Your task to perform on an android device: open a bookmark in the chrome app Image 0: 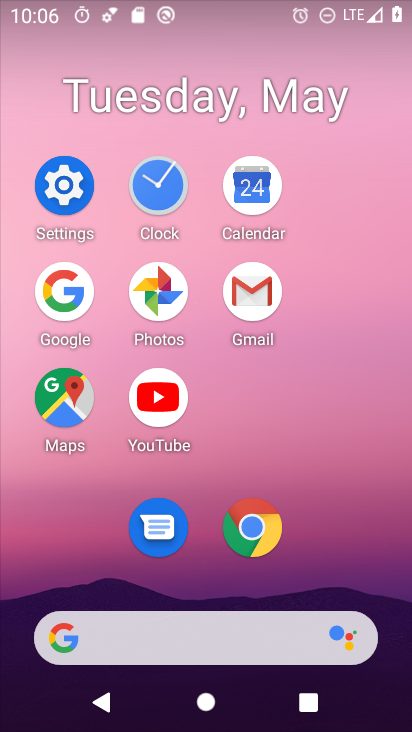
Step 0: click (255, 532)
Your task to perform on an android device: open a bookmark in the chrome app Image 1: 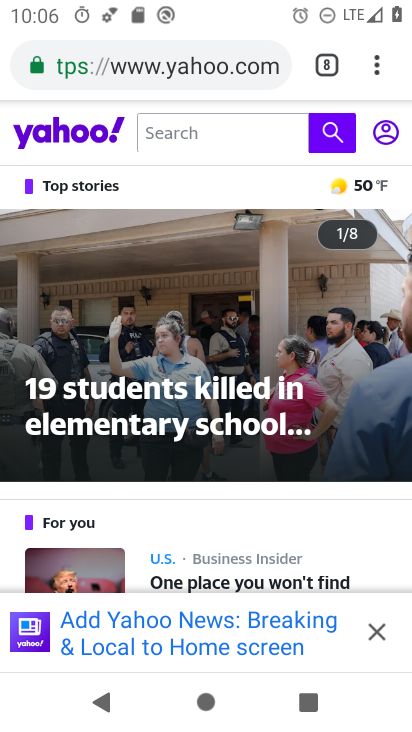
Step 1: click (387, 58)
Your task to perform on an android device: open a bookmark in the chrome app Image 2: 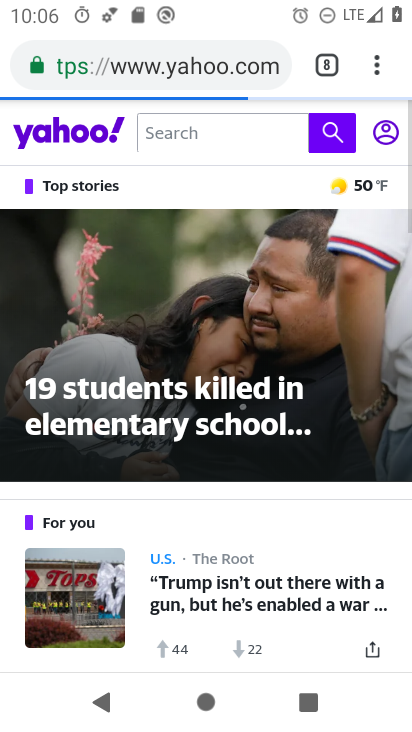
Step 2: click (383, 83)
Your task to perform on an android device: open a bookmark in the chrome app Image 3: 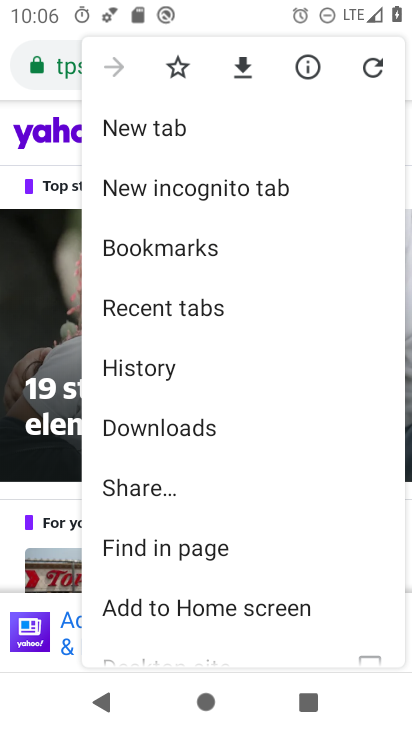
Step 3: click (231, 244)
Your task to perform on an android device: open a bookmark in the chrome app Image 4: 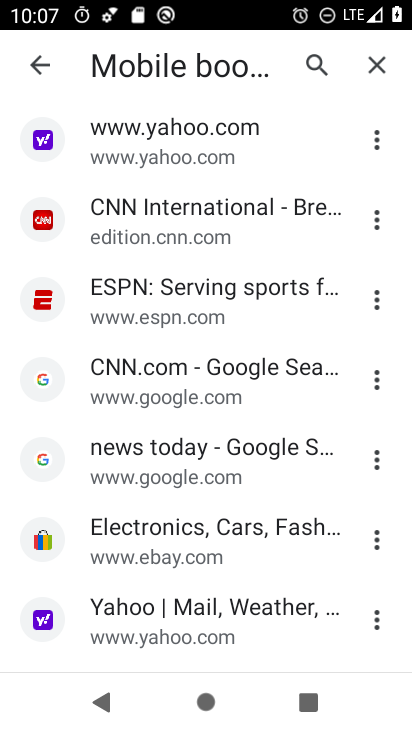
Step 4: task complete